Your task to perform on an android device: change notifications settings Image 0: 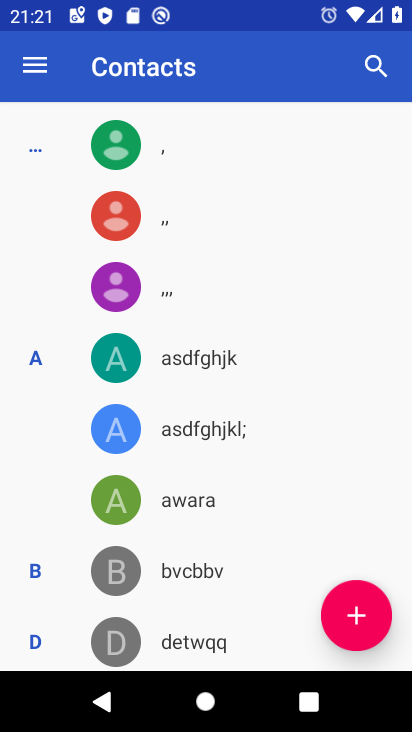
Step 0: press home button
Your task to perform on an android device: change notifications settings Image 1: 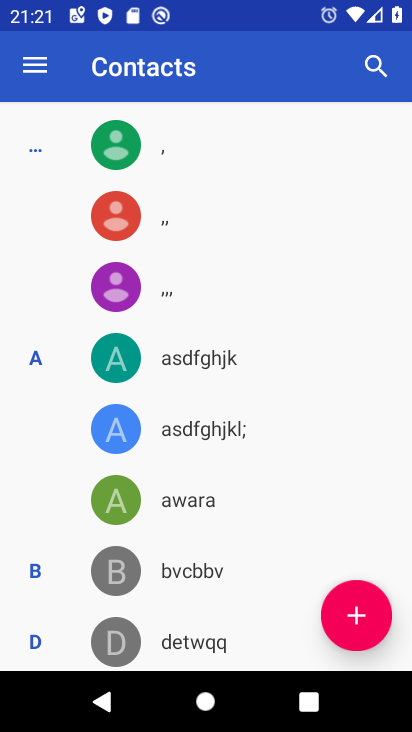
Step 1: press home button
Your task to perform on an android device: change notifications settings Image 2: 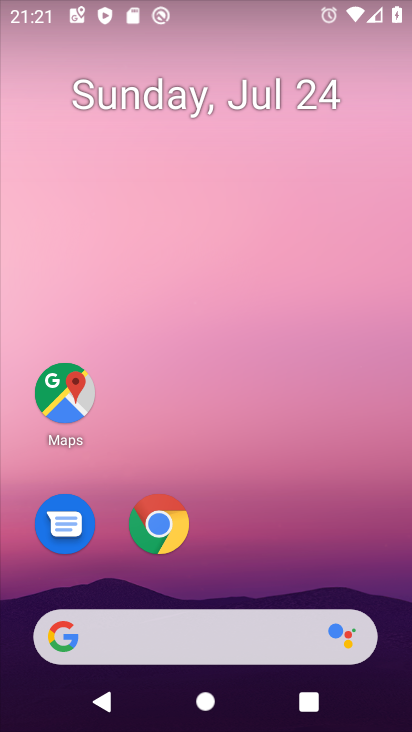
Step 2: drag from (254, 552) to (251, 0)
Your task to perform on an android device: change notifications settings Image 3: 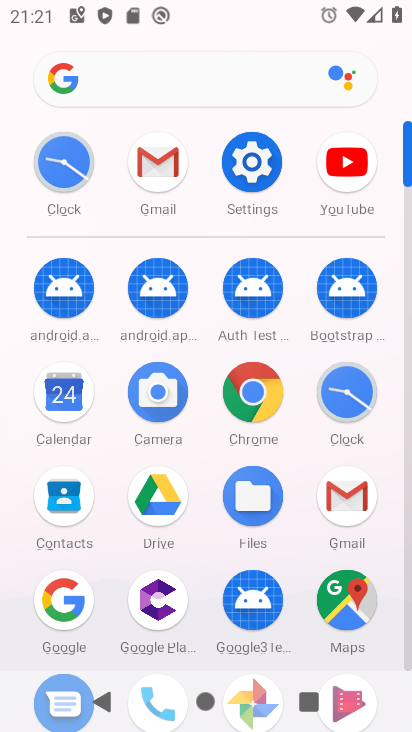
Step 3: click (254, 163)
Your task to perform on an android device: change notifications settings Image 4: 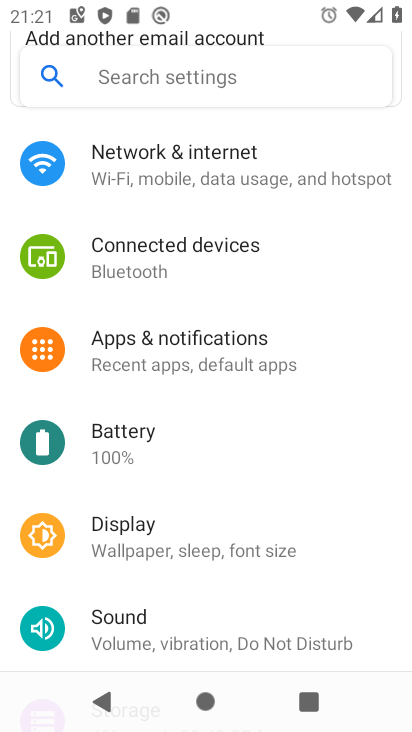
Step 4: click (275, 355)
Your task to perform on an android device: change notifications settings Image 5: 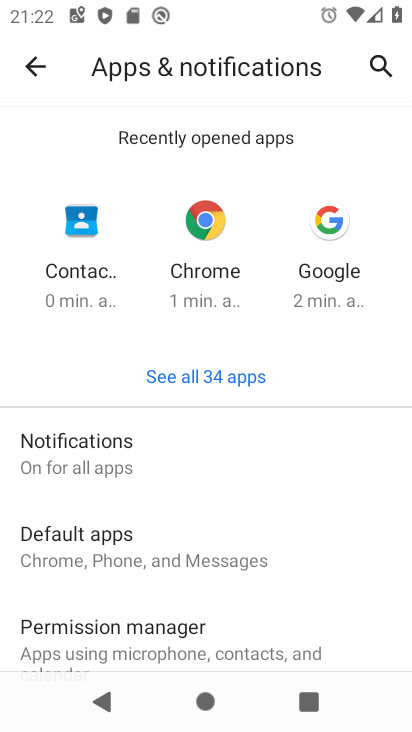
Step 5: click (99, 453)
Your task to perform on an android device: change notifications settings Image 6: 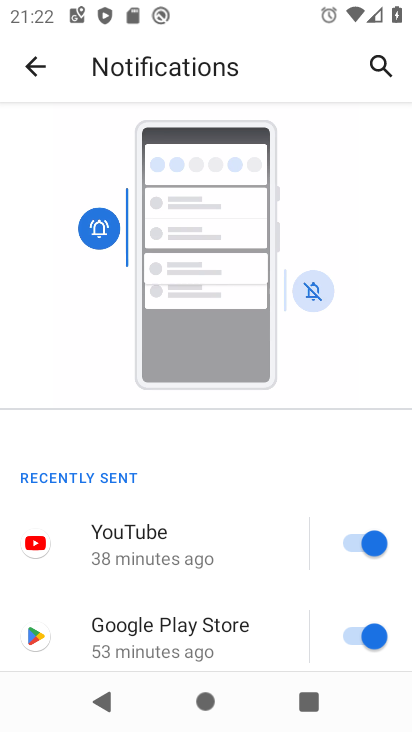
Step 6: drag from (189, 529) to (223, 192)
Your task to perform on an android device: change notifications settings Image 7: 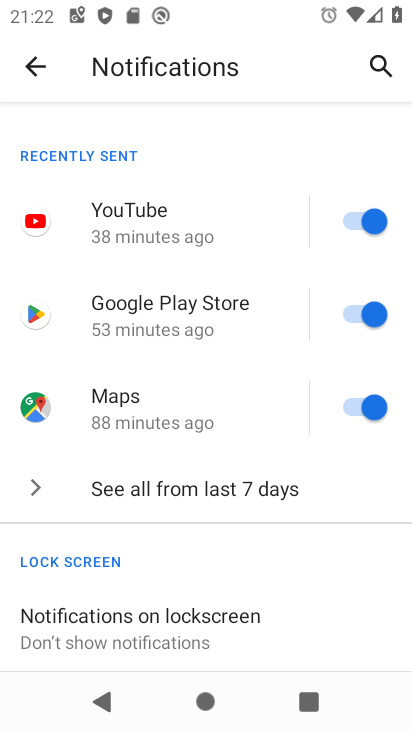
Step 7: click (225, 486)
Your task to perform on an android device: change notifications settings Image 8: 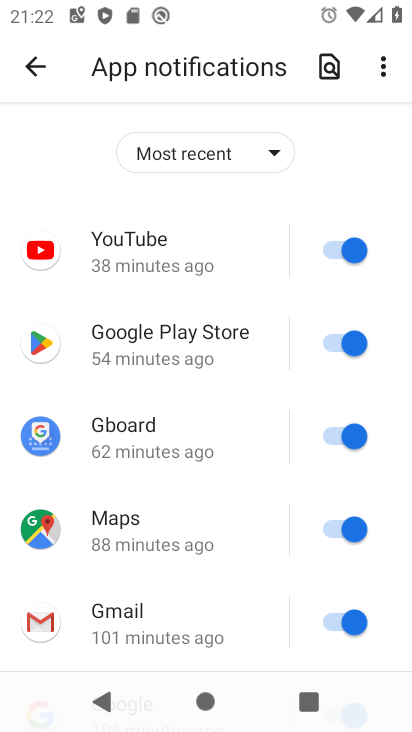
Step 8: click (349, 254)
Your task to perform on an android device: change notifications settings Image 9: 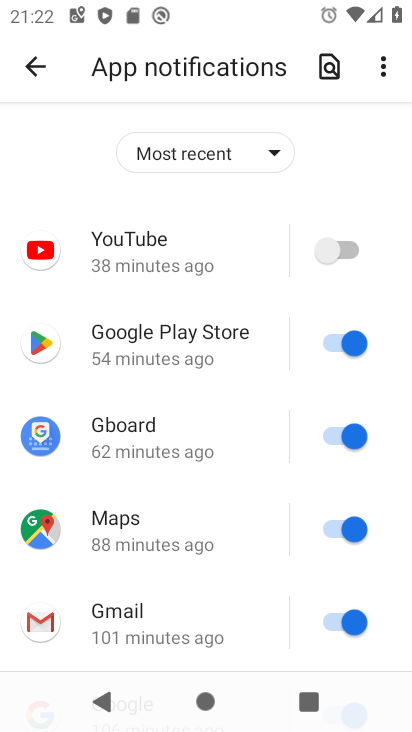
Step 9: click (347, 335)
Your task to perform on an android device: change notifications settings Image 10: 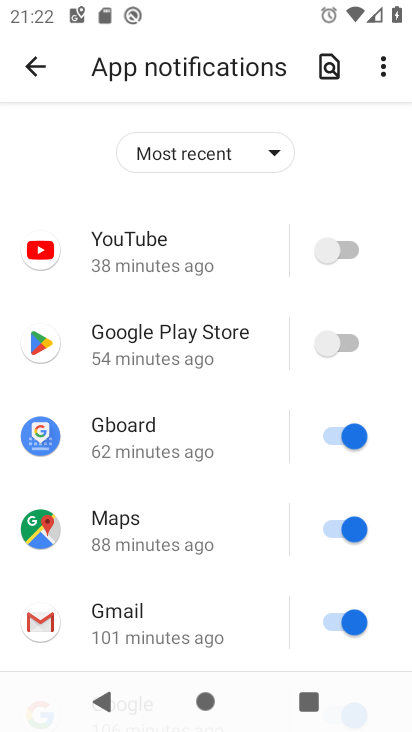
Step 10: click (340, 432)
Your task to perform on an android device: change notifications settings Image 11: 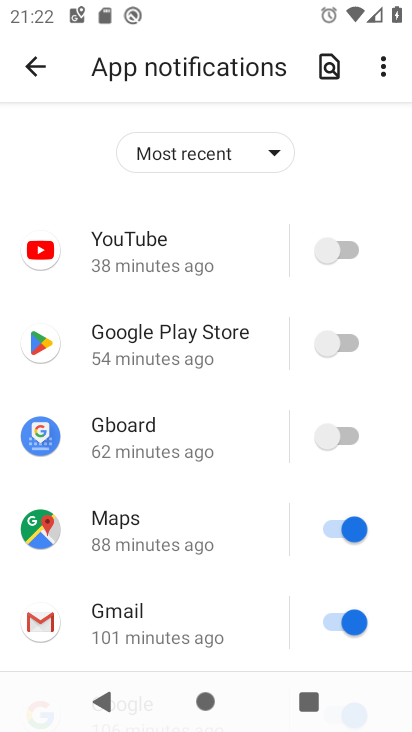
Step 11: click (343, 527)
Your task to perform on an android device: change notifications settings Image 12: 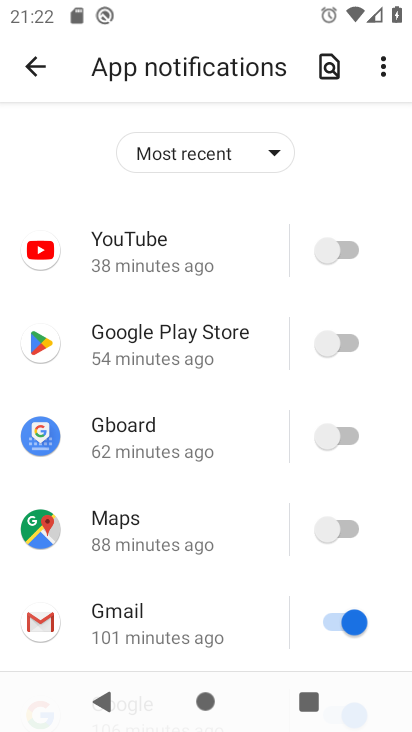
Step 12: click (344, 616)
Your task to perform on an android device: change notifications settings Image 13: 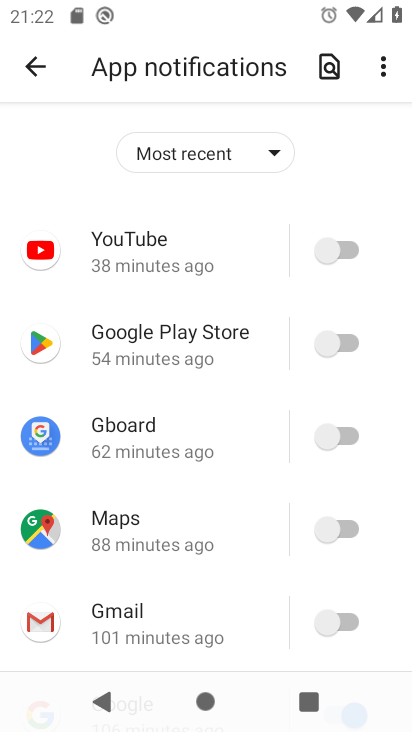
Step 13: drag from (196, 606) to (208, 86)
Your task to perform on an android device: change notifications settings Image 14: 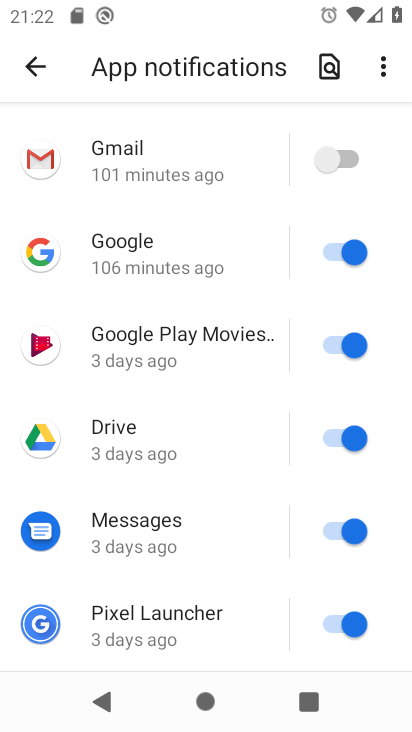
Step 14: click (333, 246)
Your task to perform on an android device: change notifications settings Image 15: 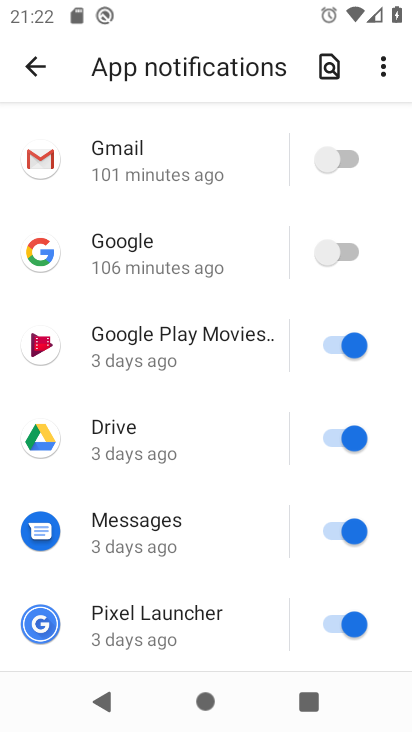
Step 15: click (346, 345)
Your task to perform on an android device: change notifications settings Image 16: 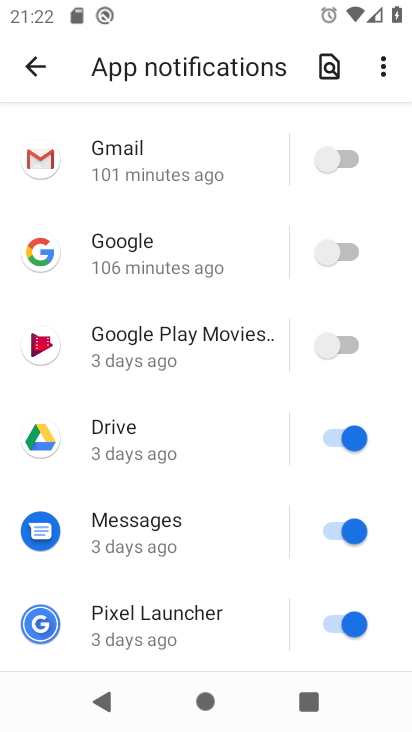
Step 16: click (344, 435)
Your task to perform on an android device: change notifications settings Image 17: 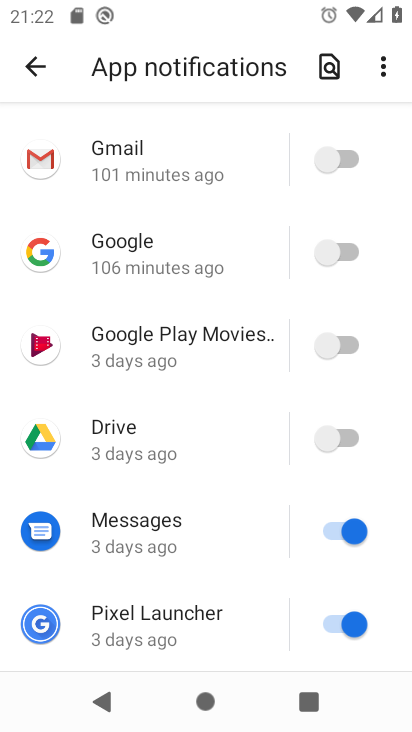
Step 17: click (338, 529)
Your task to perform on an android device: change notifications settings Image 18: 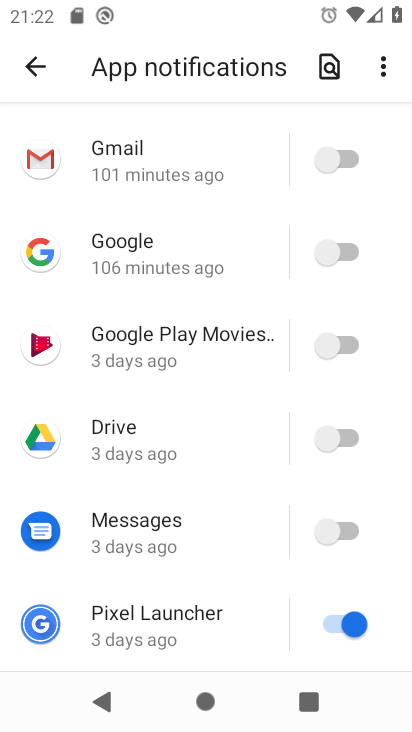
Step 18: click (338, 627)
Your task to perform on an android device: change notifications settings Image 19: 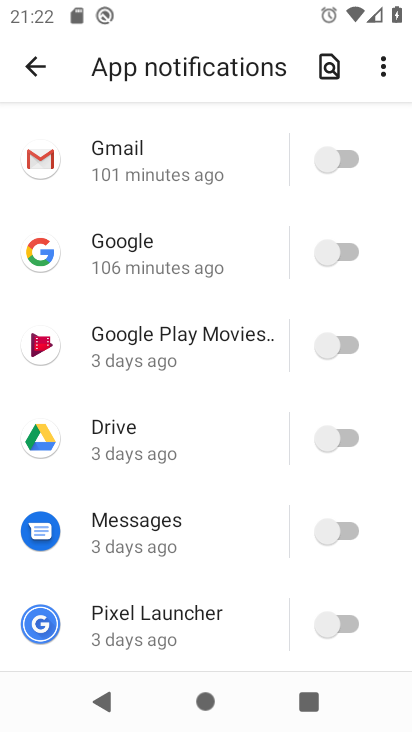
Step 19: task complete